Your task to perform on an android device: Go to eBay Image 0: 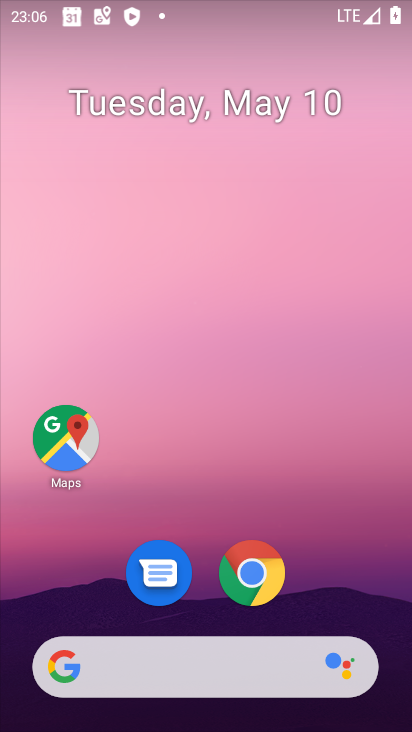
Step 0: click (251, 564)
Your task to perform on an android device: Go to eBay Image 1: 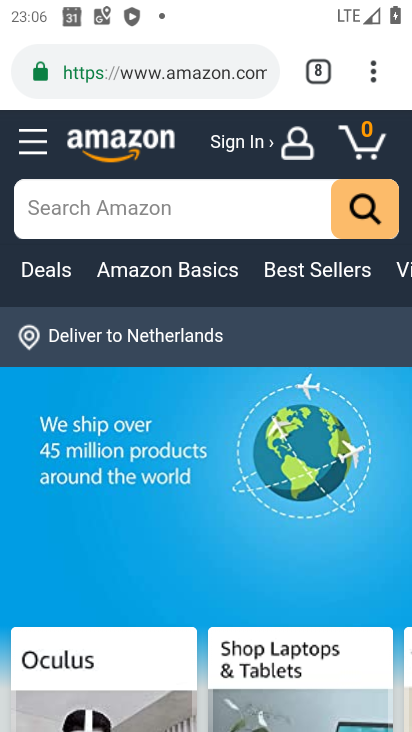
Step 1: click (369, 74)
Your task to perform on an android device: Go to eBay Image 2: 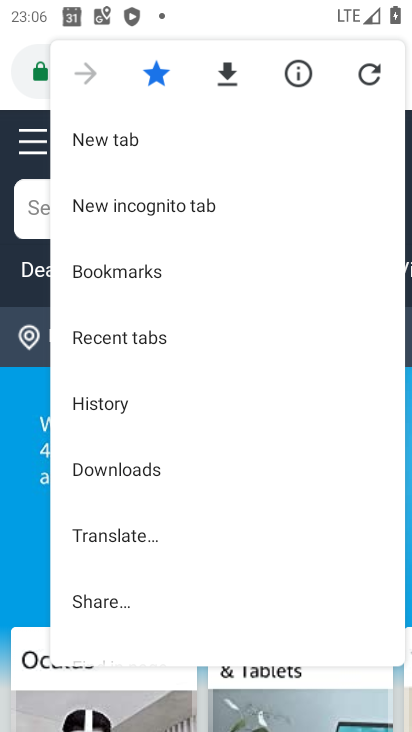
Step 2: click (120, 129)
Your task to perform on an android device: Go to eBay Image 3: 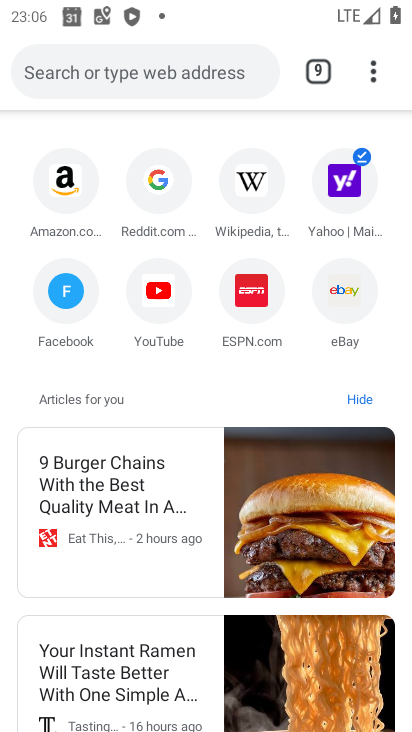
Step 3: click (130, 66)
Your task to perform on an android device: Go to eBay Image 4: 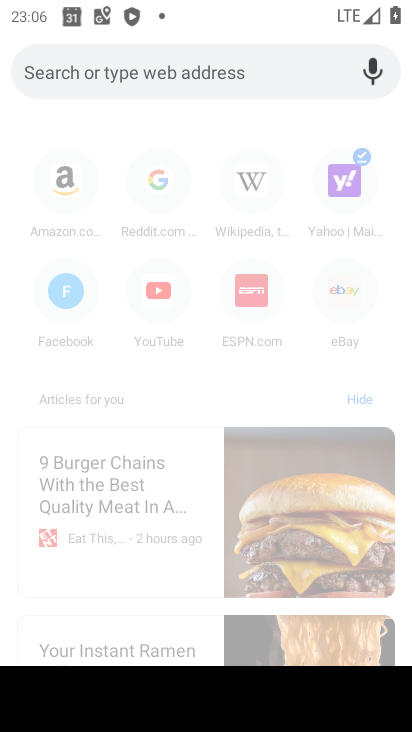
Step 4: click (359, 314)
Your task to perform on an android device: Go to eBay Image 5: 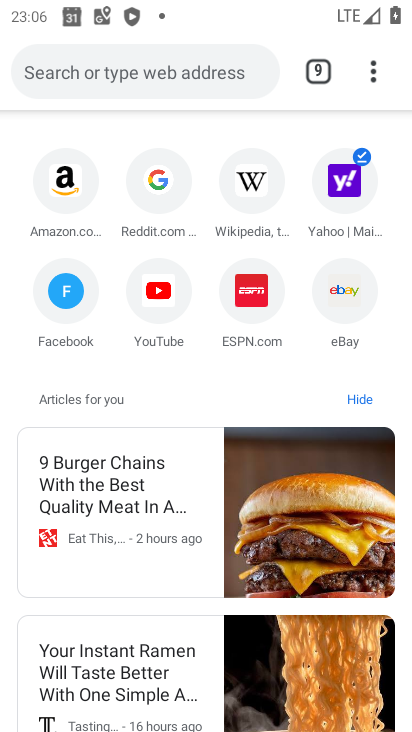
Step 5: click (336, 291)
Your task to perform on an android device: Go to eBay Image 6: 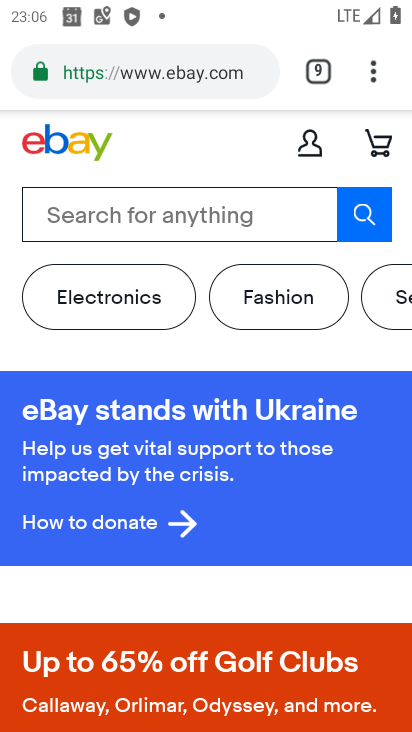
Step 6: task complete